Your task to perform on an android device: turn on the 12-hour format for clock Image 0: 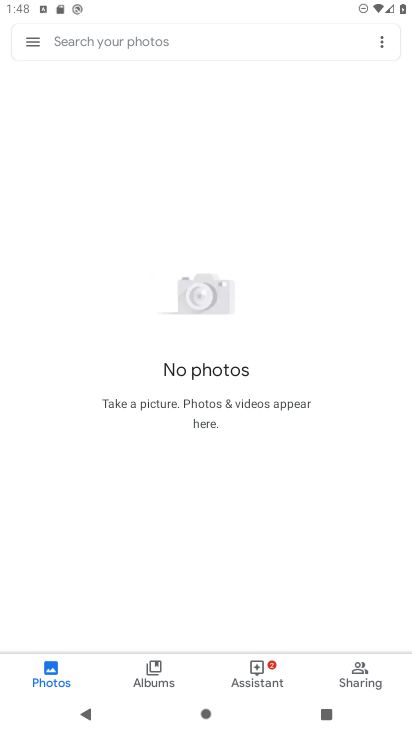
Step 0: press home button
Your task to perform on an android device: turn on the 12-hour format for clock Image 1: 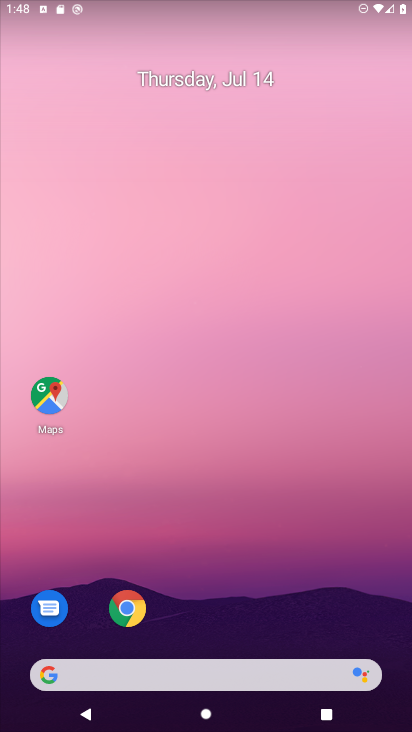
Step 1: drag from (373, 604) to (330, 173)
Your task to perform on an android device: turn on the 12-hour format for clock Image 2: 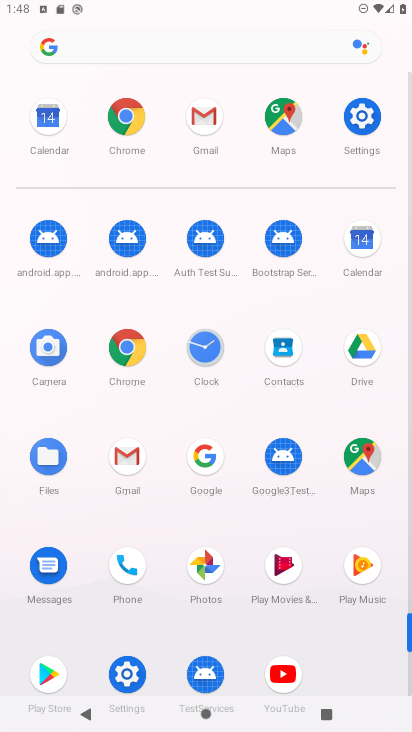
Step 2: click (203, 350)
Your task to perform on an android device: turn on the 12-hour format for clock Image 3: 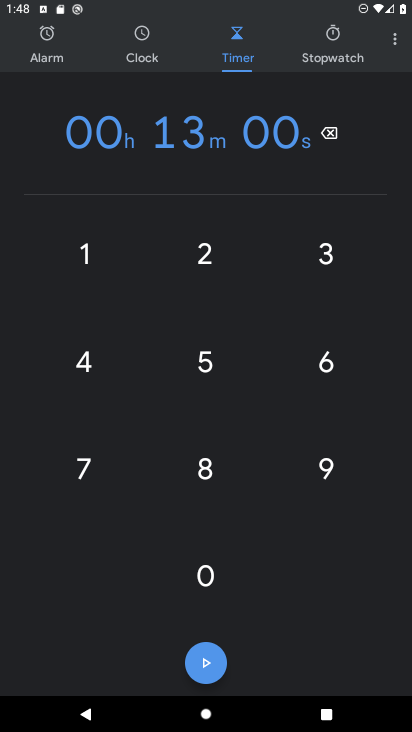
Step 3: click (396, 43)
Your task to perform on an android device: turn on the 12-hour format for clock Image 4: 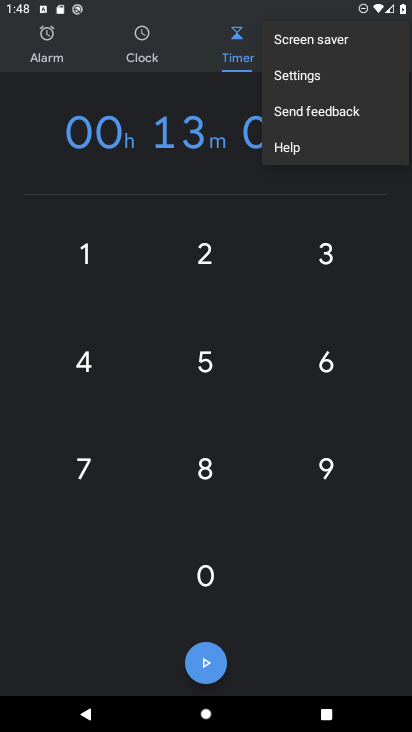
Step 4: click (295, 74)
Your task to perform on an android device: turn on the 12-hour format for clock Image 5: 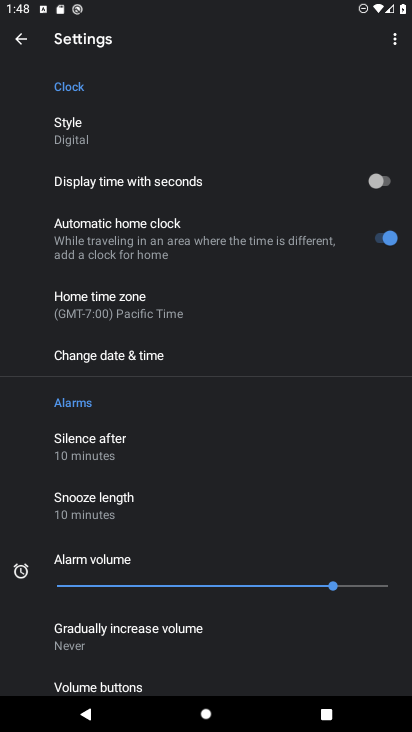
Step 5: click (148, 349)
Your task to perform on an android device: turn on the 12-hour format for clock Image 6: 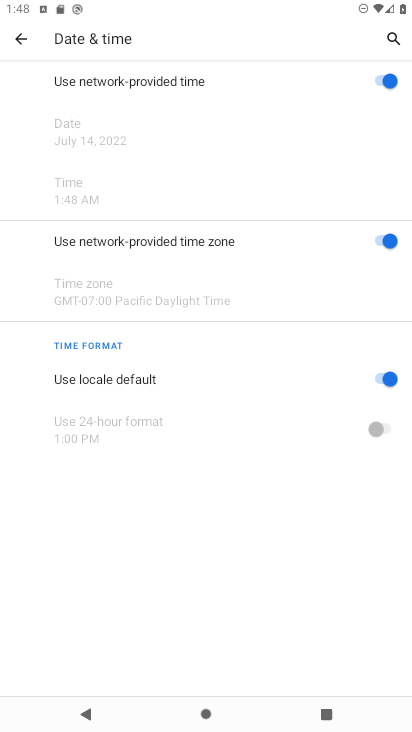
Step 6: task complete